Your task to perform on an android device: Go to eBay Image 0: 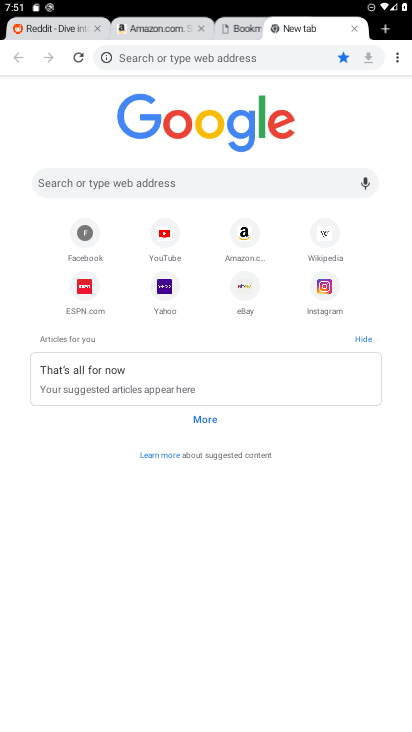
Step 0: press home button
Your task to perform on an android device: Go to eBay Image 1: 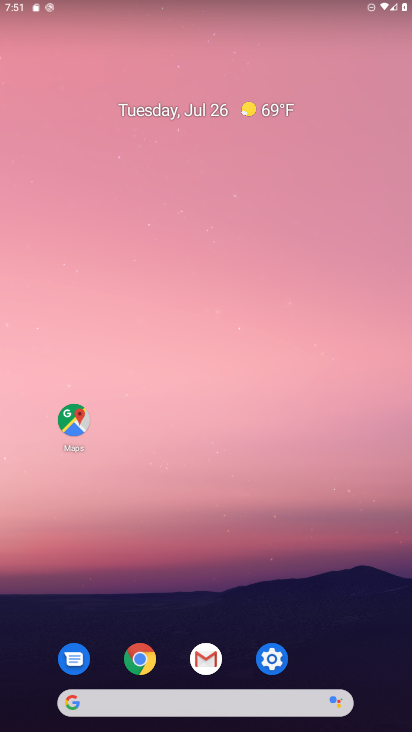
Step 1: click (142, 655)
Your task to perform on an android device: Go to eBay Image 2: 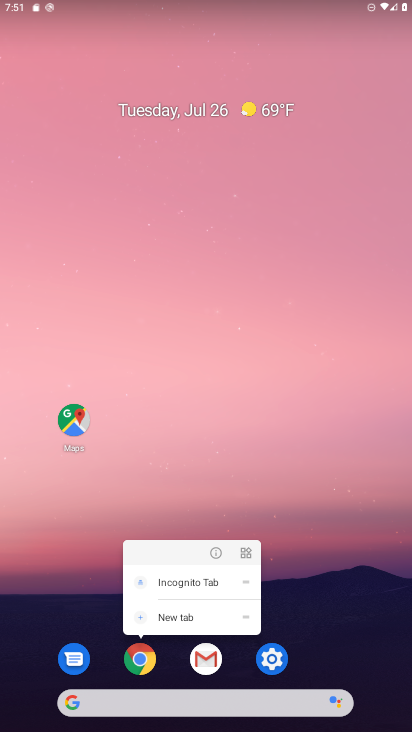
Step 2: click (140, 655)
Your task to perform on an android device: Go to eBay Image 3: 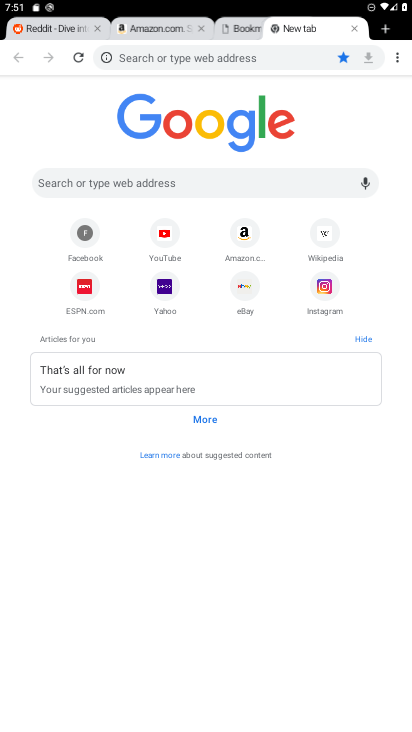
Step 3: click (253, 288)
Your task to perform on an android device: Go to eBay Image 4: 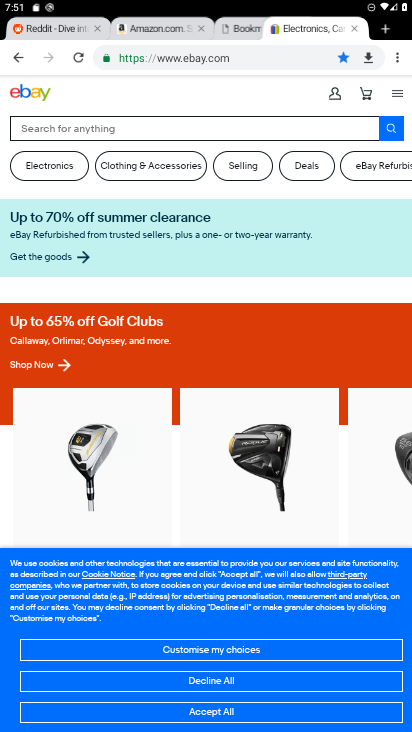
Step 4: task complete